Your task to perform on an android device: open chrome privacy settings Image 0: 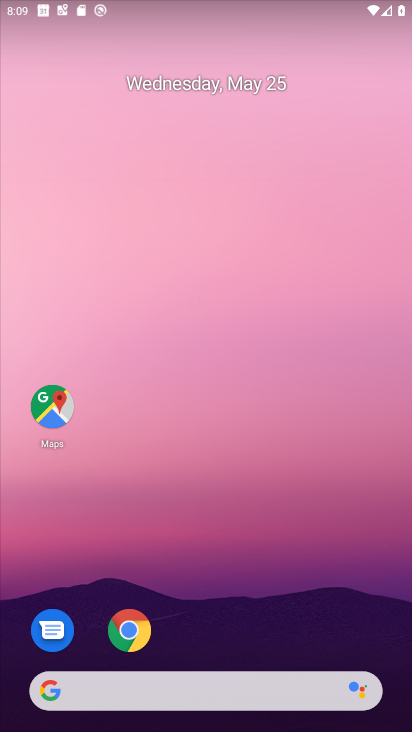
Step 0: click (129, 633)
Your task to perform on an android device: open chrome privacy settings Image 1: 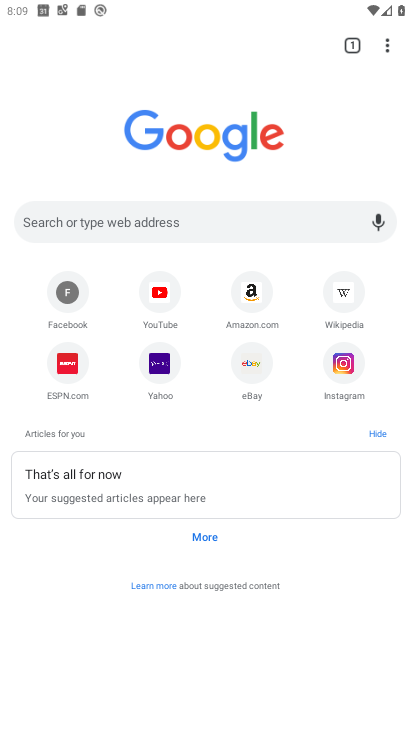
Step 1: click (380, 47)
Your task to perform on an android device: open chrome privacy settings Image 2: 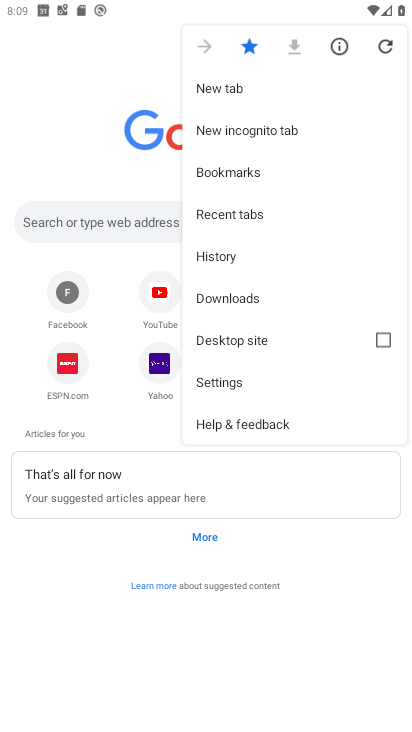
Step 2: click (253, 385)
Your task to perform on an android device: open chrome privacy settings Image 3: 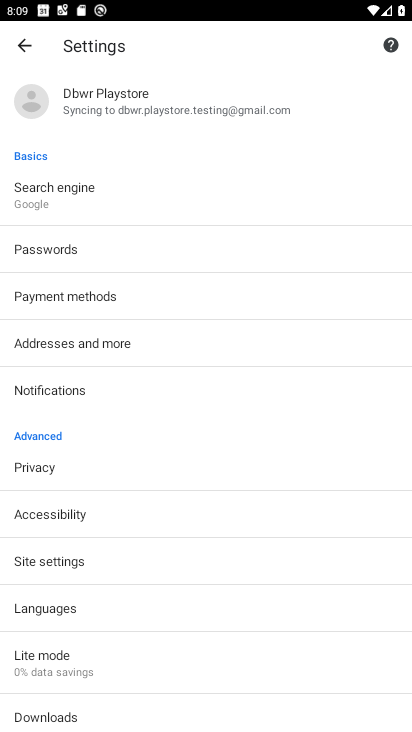
Step 3: click (49, 464)
Your task to perform on an android device: open chrome privacy settings Image 4: 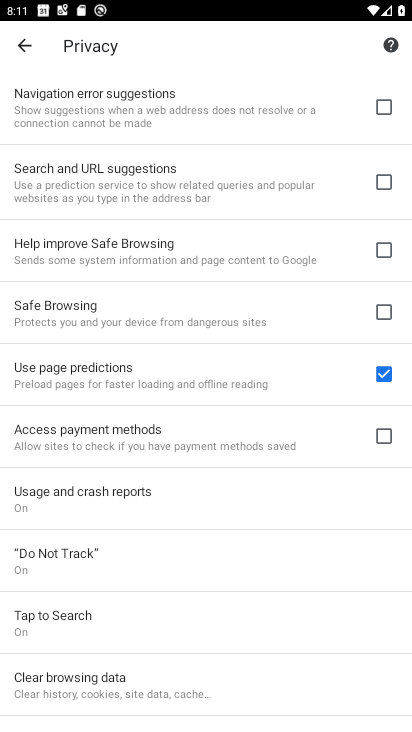
Step 4: task complete